Your task to perform on an android device: Go to CNN.com Image 0: 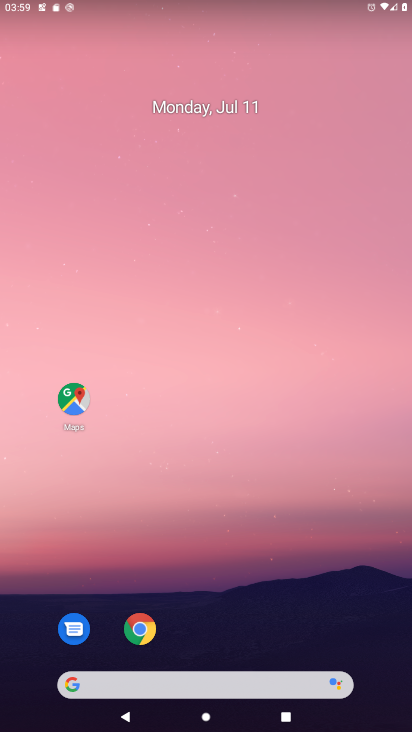
Step 0: click (140, 619)
Your task to perform on an android device: Go to CNN.com Image 1: 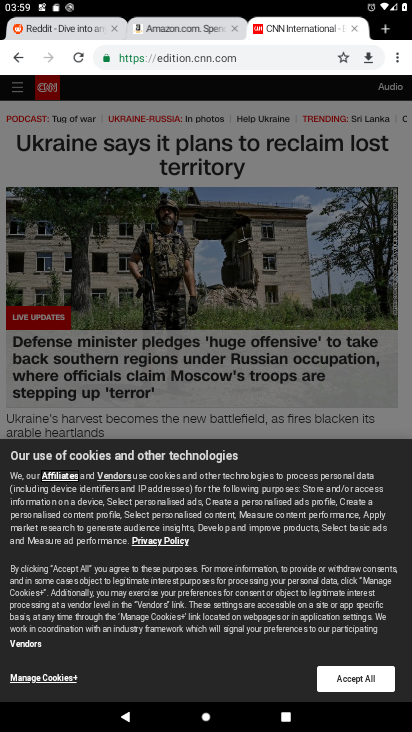
Step 1: task complete